Your task to perform on an android device: turn on notifications settings in the gmail app Image 0: 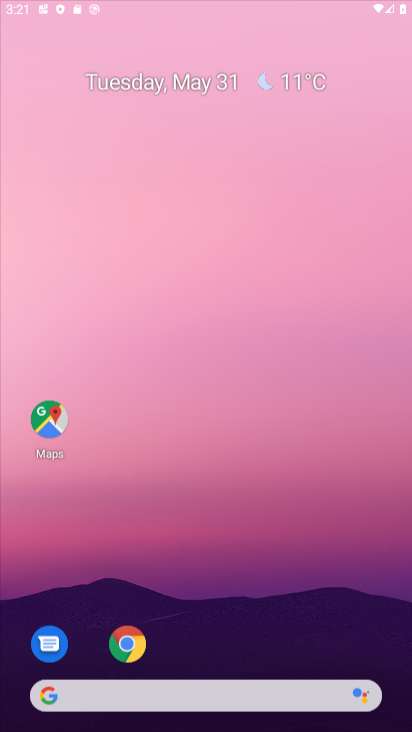
Step 0: click (270, 103)
Your task to perform on an android device: turn on notifications settings in the gmail app Image 1: 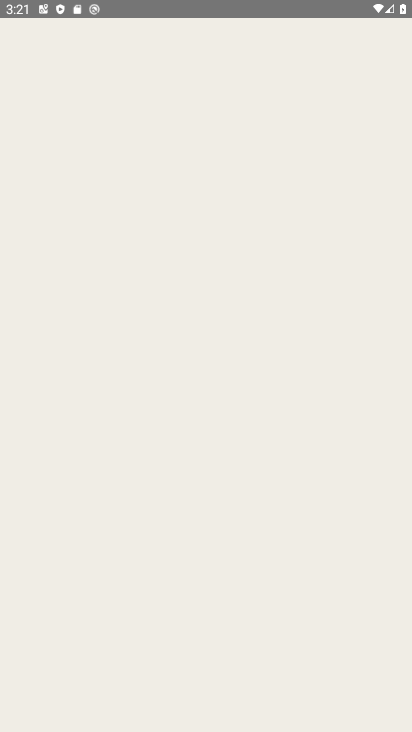
Step 1: press home button
Your task to perform on an android device: turn on notifications settings in the gmail app Image 2: 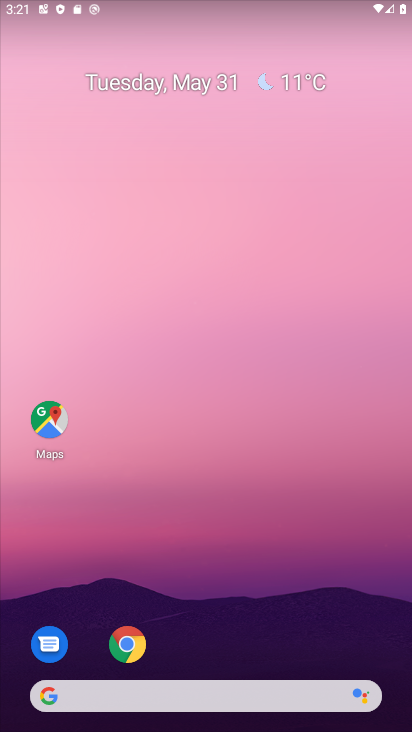
Step 2: drag from (225, 614) to (347, 154)
Your task to perform on an android device: turn on notifications settings in the gmail app Image 3: 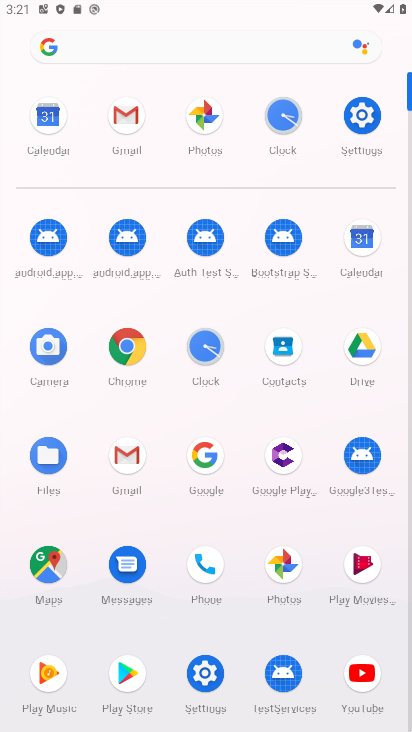
Step 3: click (124, 112)
Your task to perform on an android device: turn on notifications settings in the gmail app Image 4: 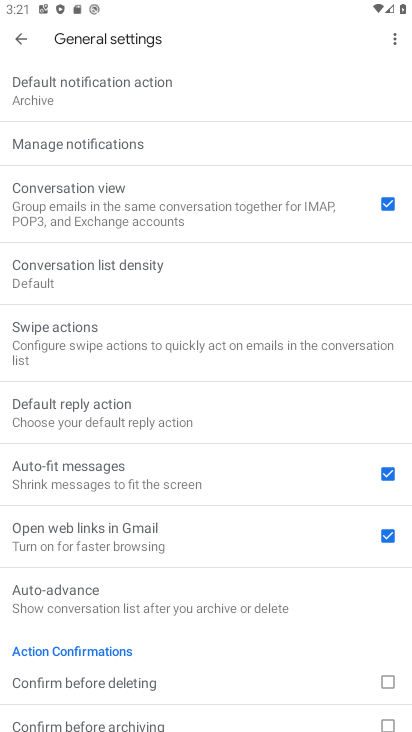
Step 4: click (153, 133)
Your task to perform on an android device: turn on notifications settings in the gmail app Image 5: 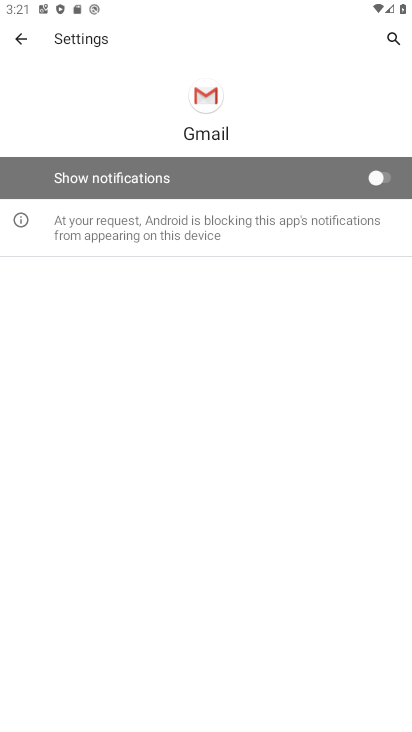
Step 5: click (385, 179)
Your task to perform on an android device: turn on notifications settings in the gmail app Image 6: 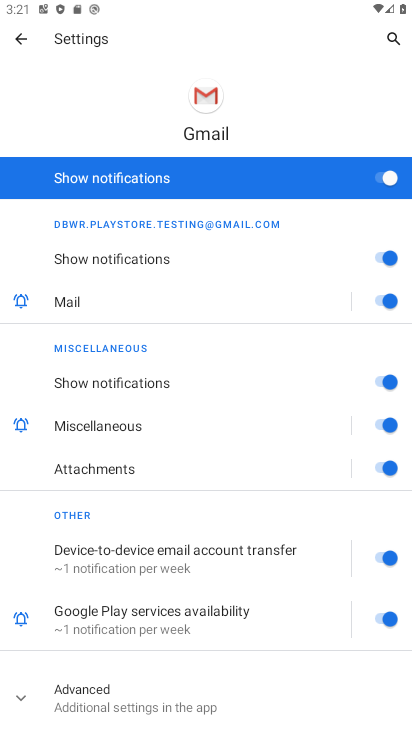
Step 6: task complete